Your task to perform on an android device: Turn off the flashlight Image 0: 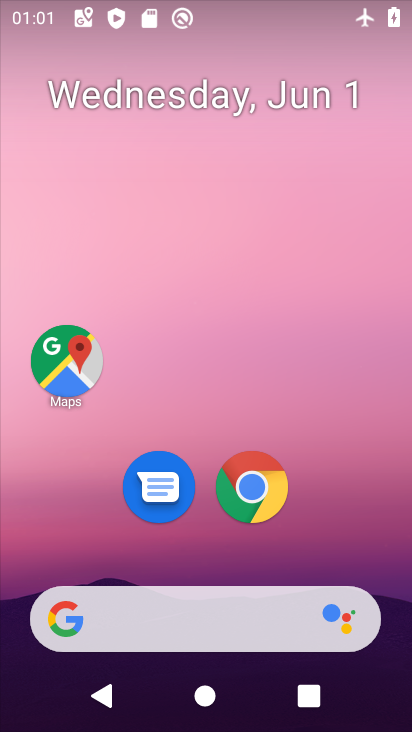
Step 0: drag from (285, 508) to (293, 171)
Your task to perform on an android device: Turn off the flashlight Image 1: 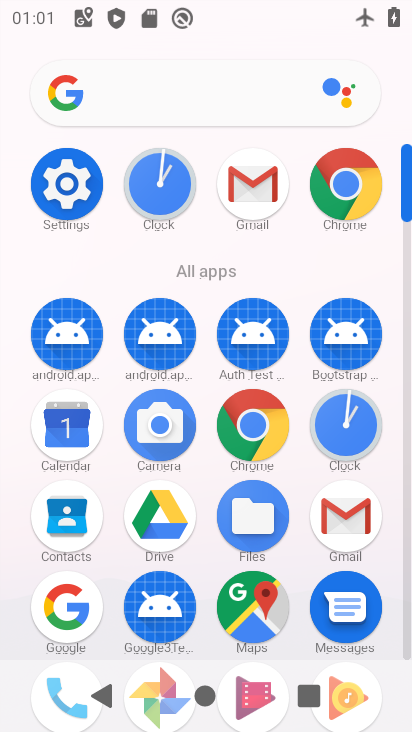
Step 1: click (61, 159)
Your task to perform on an android device: Turn off the flashlight Image 2: 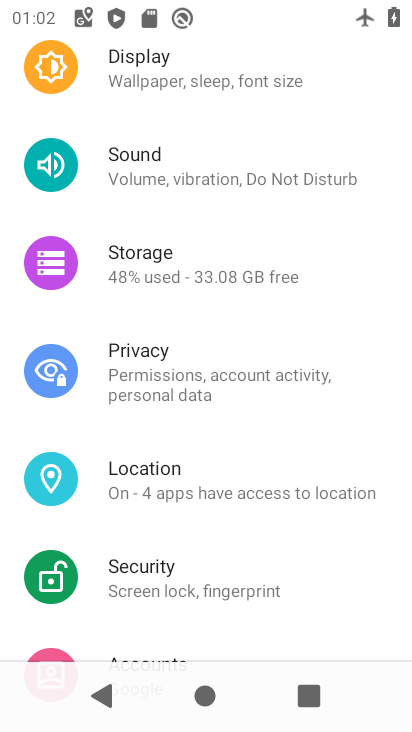
Step 2: task complete